Your task to perform on an android device: Open settings Image 0: 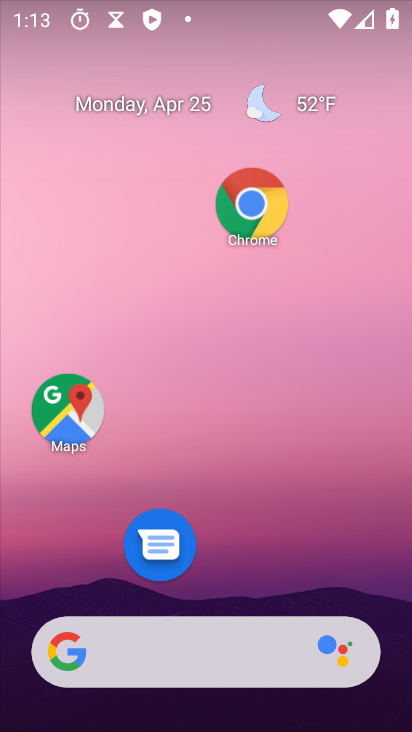
Step 0: drag from (311, 681) to (287, 351)
Your task to perform on an android device: Open settings Image 1: 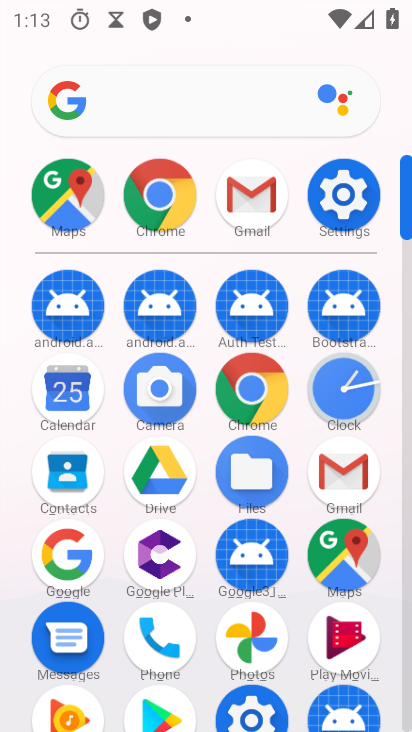
Step 1: click (344, 208)
Your task to perform on an android device: Open settings Image 2: 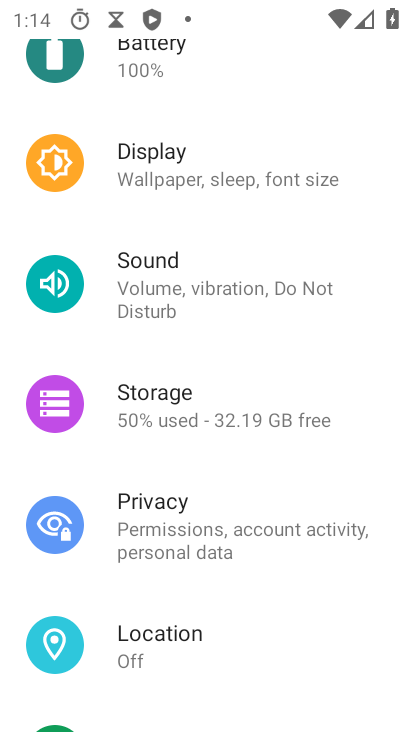
Step 2: task complete